Your task to perform on an android device: Go to Google maps Image 0: 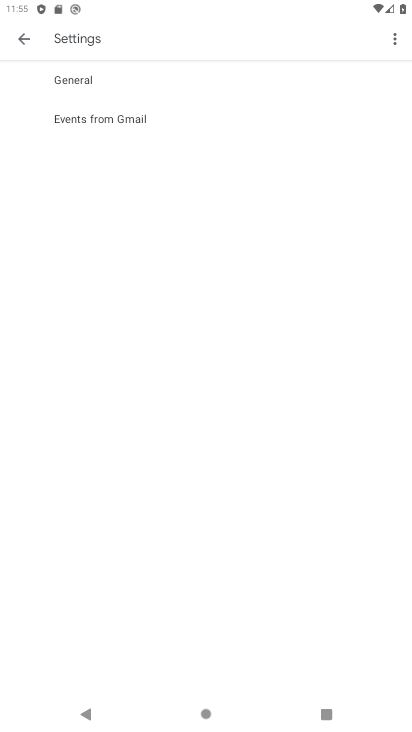
Step 0: press home button
Your task to perform on an android device: Go to Google maps Image 1: 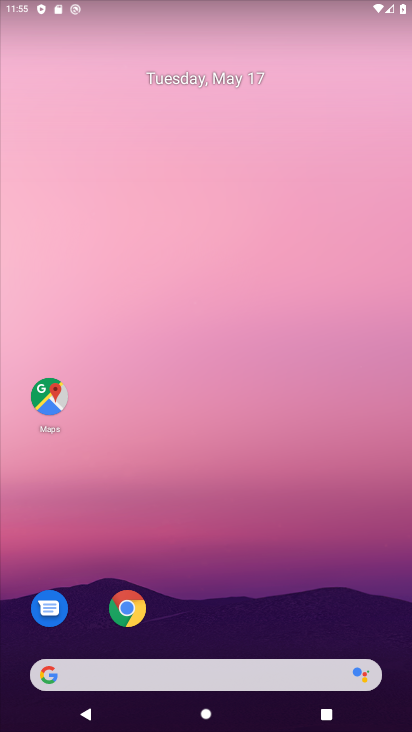
Step 1: click (50, 401)
Your task to perform on an android device: Go to Google maps Image 2: 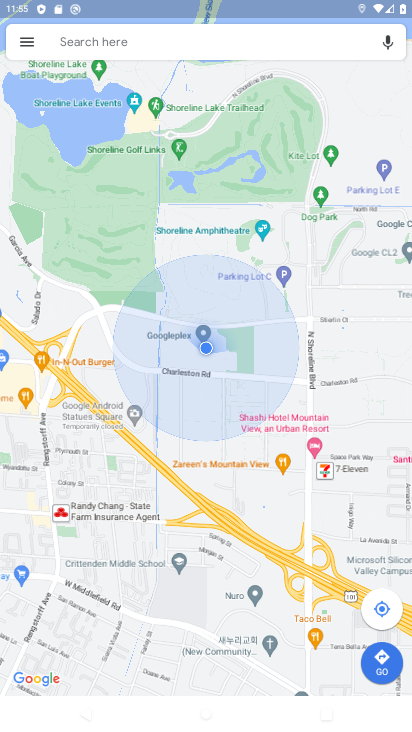
Step 2: task complete